Your task to perform on an android device: Search for flights from Boston to Sydney Image 0: 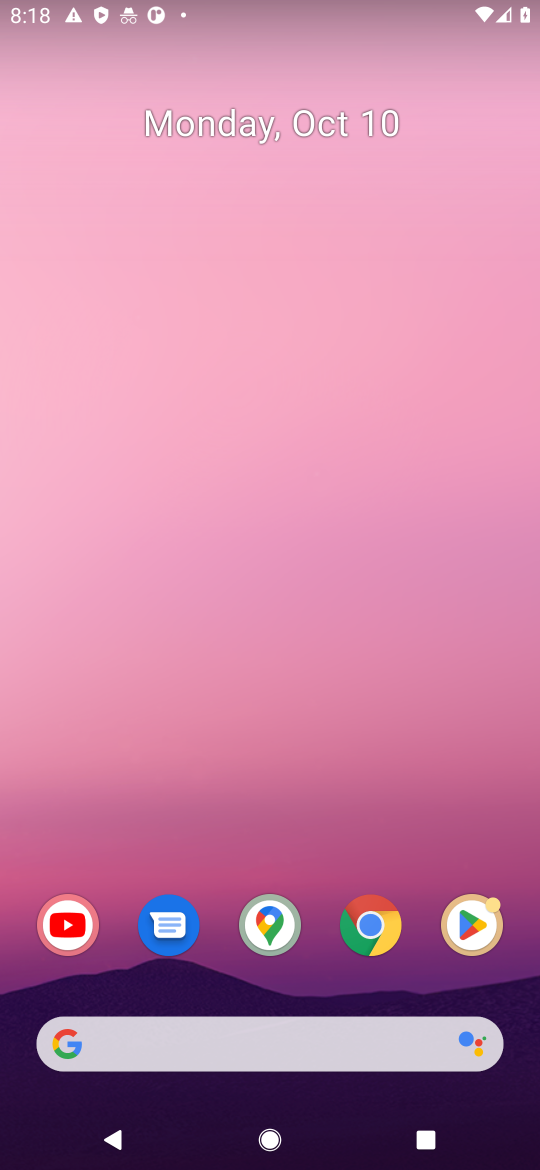
Step 0: drag from (313, 1008) to (292, 87)
Your task to perform on an android device: Search for flights from Boston to Sydney Image 1: 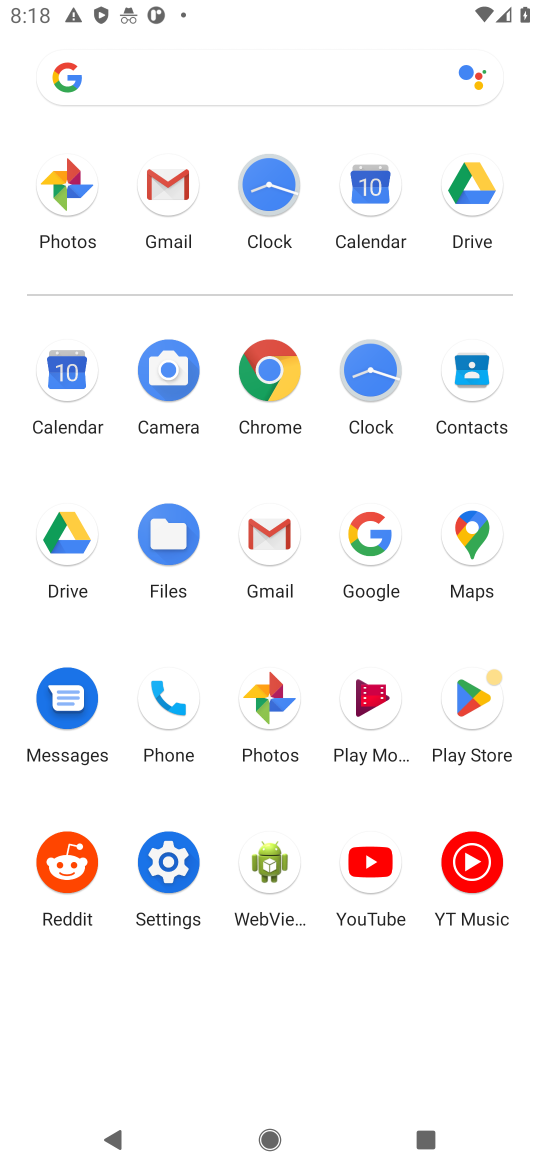
Step 1: click (265, 377)
Your task to perform on an android device: Search for flights from Boston to Sydney Image 2: 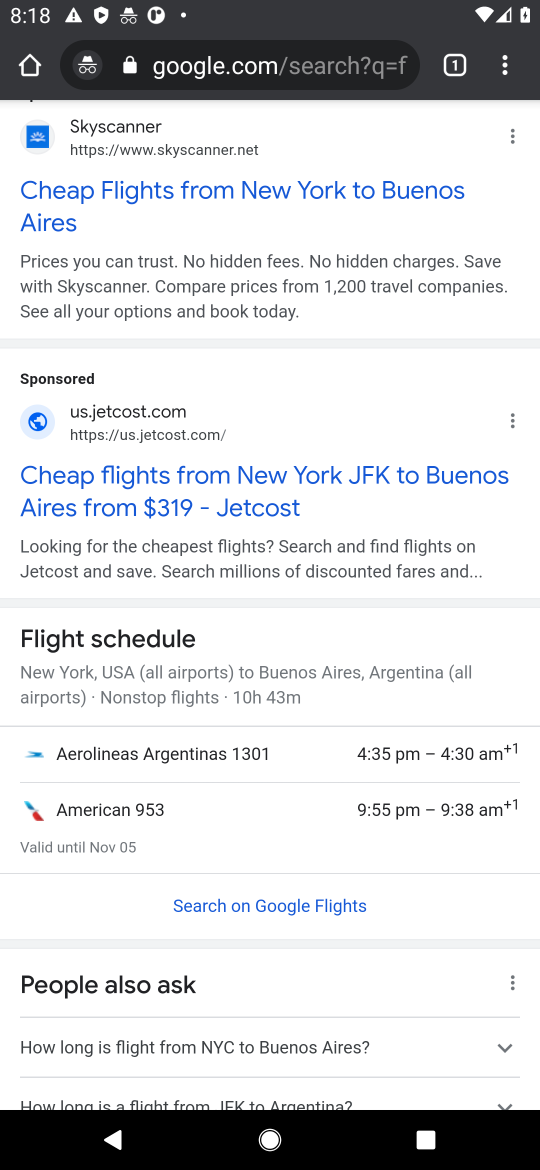
Step 2: click (277, 81)
Your task to perform on an android device: Search for flights from Boston to Sydney Image 3: 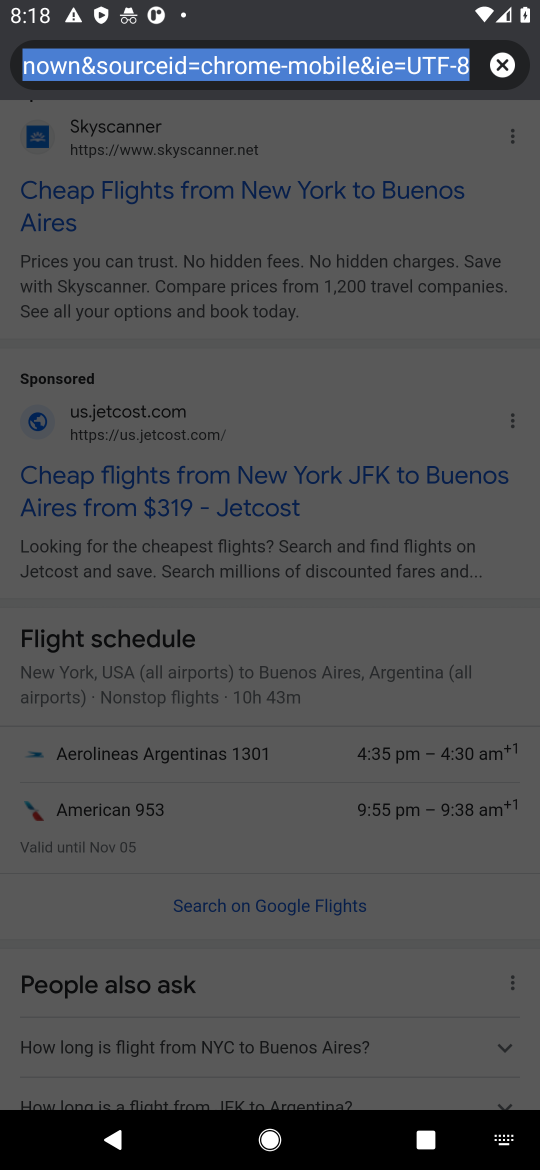
Step 3: type "flights from Boston to Sydney"
Your task to perform on an android device: Search for flights from Boston to Sydney Image 4: 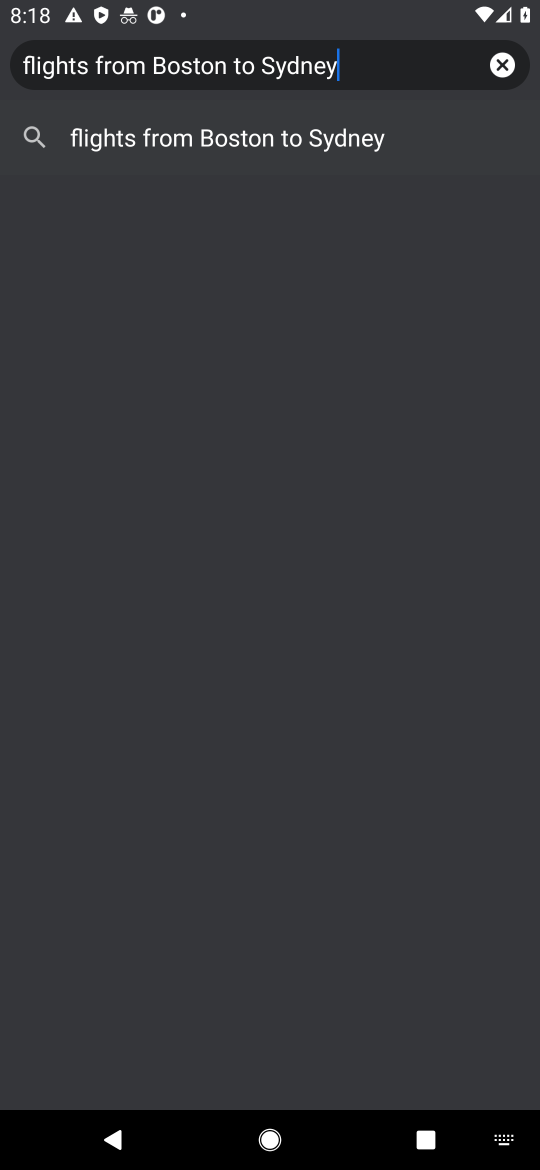
Step 4: press enter
Your task to perform on an android device: Search for flights from Boston to Sydney Image 5: 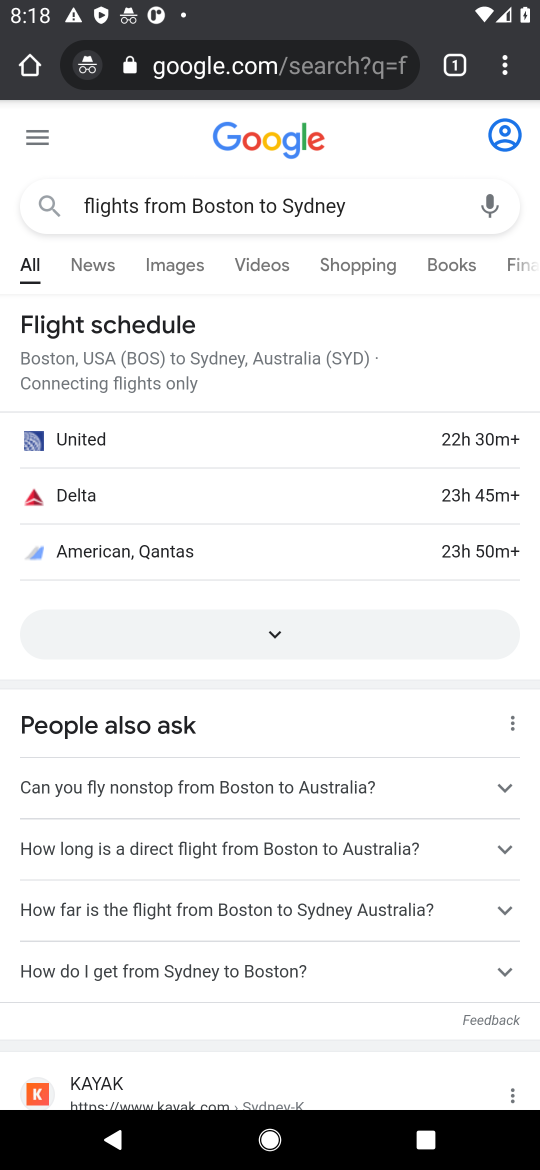
Step 5: task complete